Your task to perform on an android device: Open the calculator Image 0: 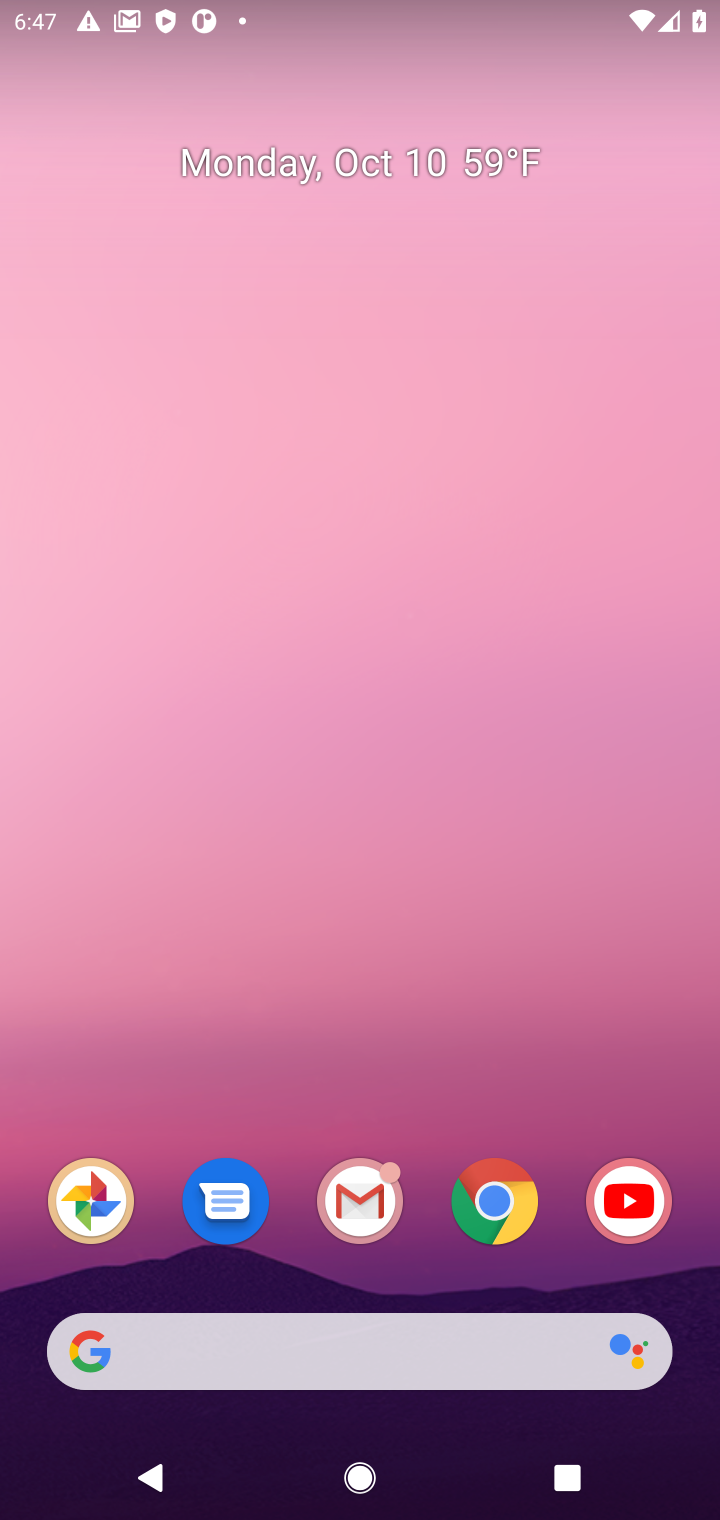
Step 0: drag from (400, 1310) to (350, 401)
Your task to perform on an android device: Open the calculator Image 1: 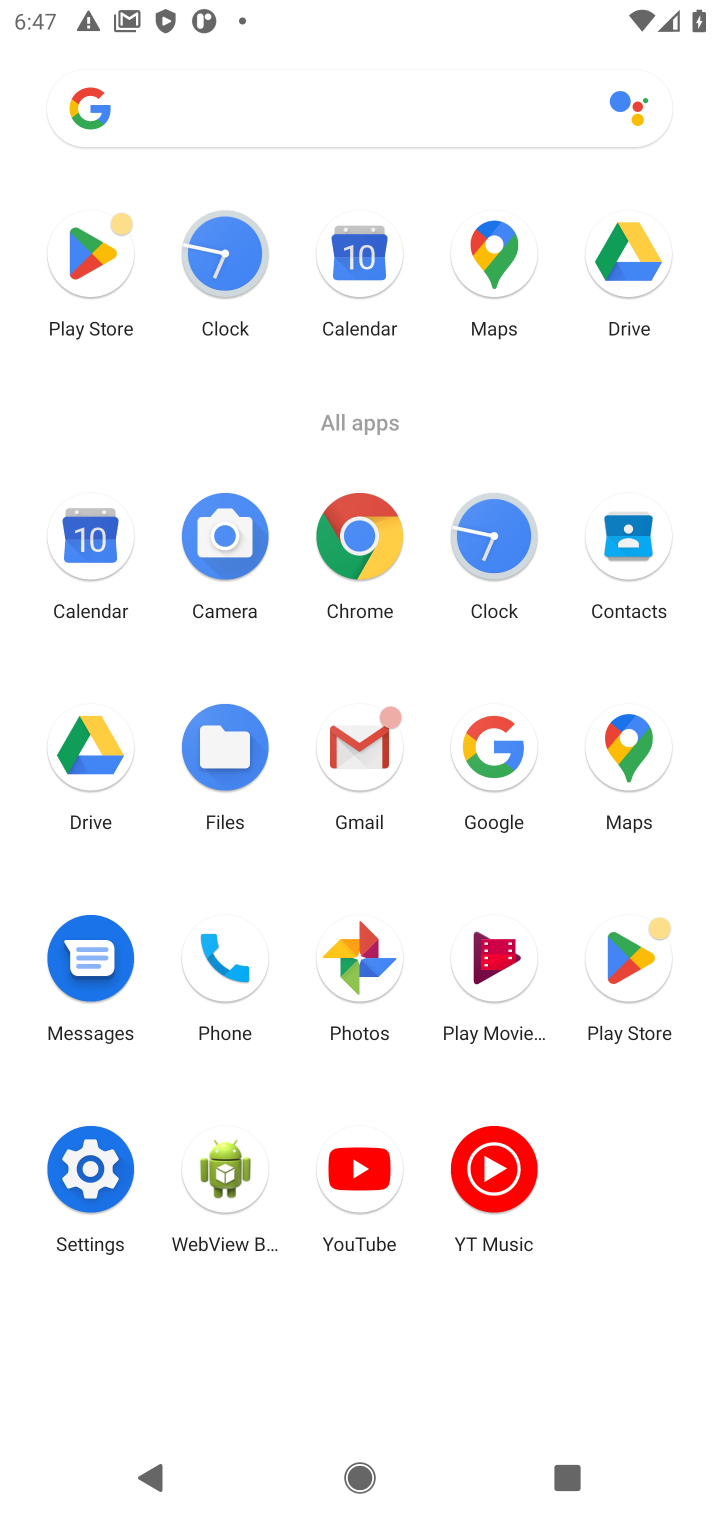
Step 1: task complete